Your task to perform on an android device: Do I have any events tomorrow? Image 0: 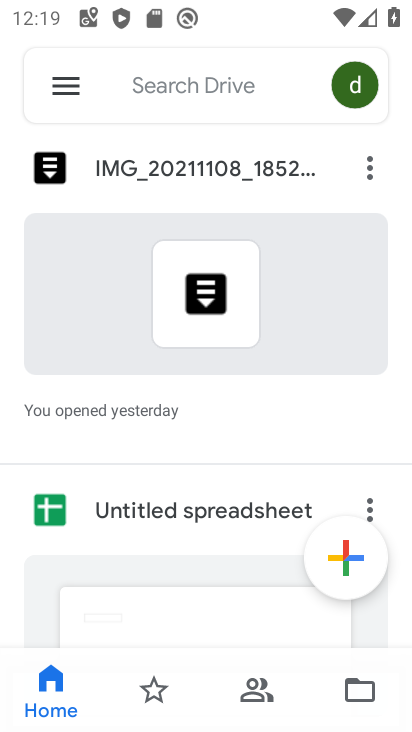
Step 0: press home button
Your task to perform on an android device: Do I have any events tomorrow? Image 1: 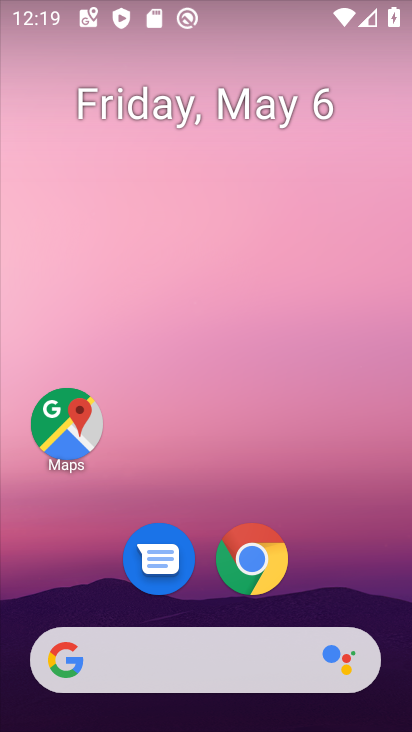
Step 1: drag from (343, 594) to (328, 23)
Your task to perform on an android device: Do I have any events tomorrow? Image 2: 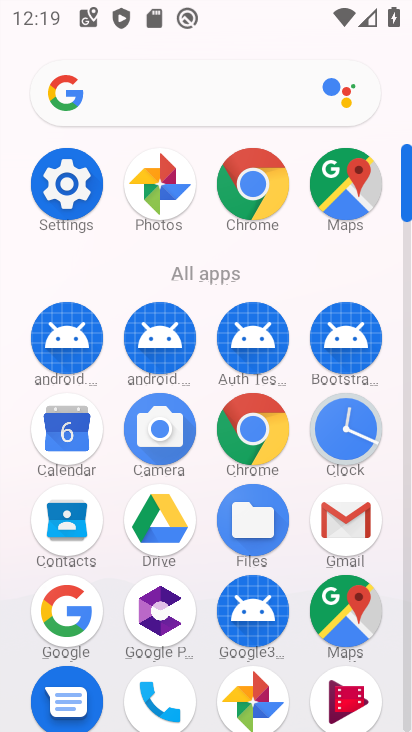
Step 2: drag from (157, 105) to (121, 65)
Your task to perform on an android device: Do I have any events tomorrow? Image 3: 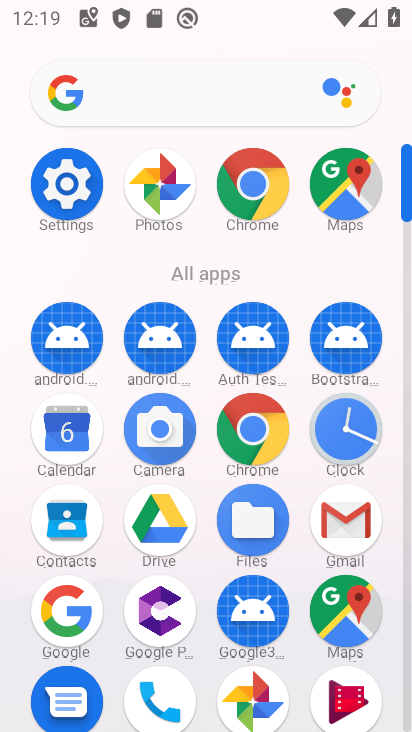
Step 3: click (48, 428)
Your task to perform on an android device: Do I have any events tomorrow? Image 4: 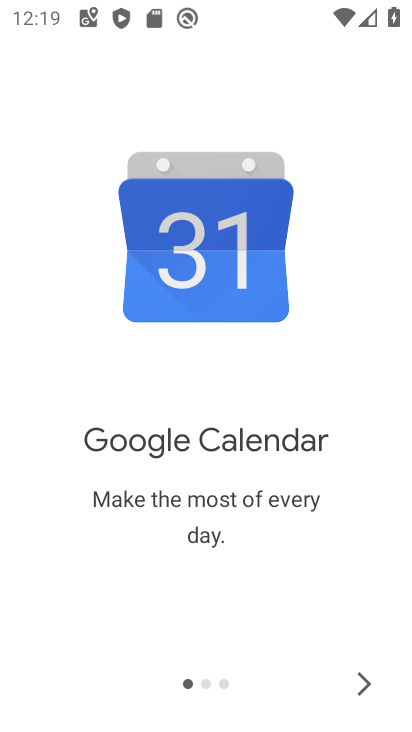
Step 4: click (353, 683)
Your task to perform on an android device: Do I have any events tomorrow? Image 5: 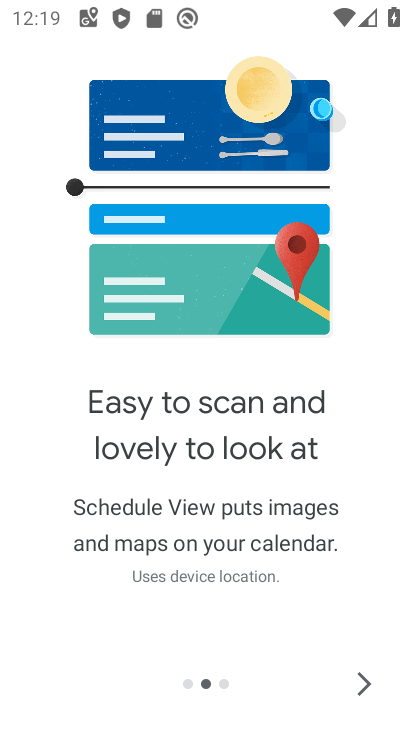
Step 5: click (353, 683)
Your task to perform on an android device: Do I have any events tomorrow? Image 6: 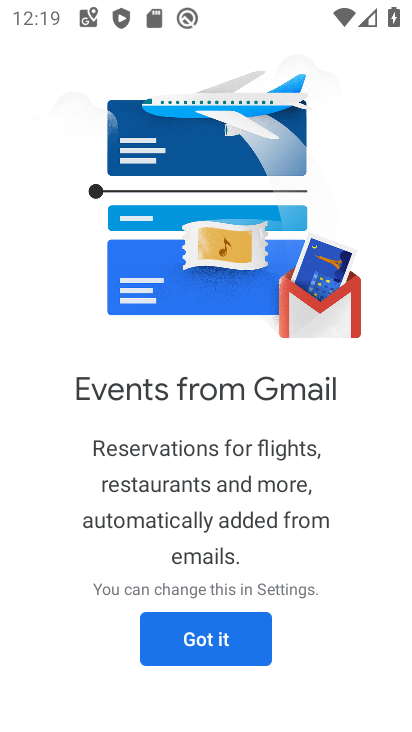
Step 6: click (262, 645)
Your task to perform on an android device: Do I have any events tomorrow? Image 7: 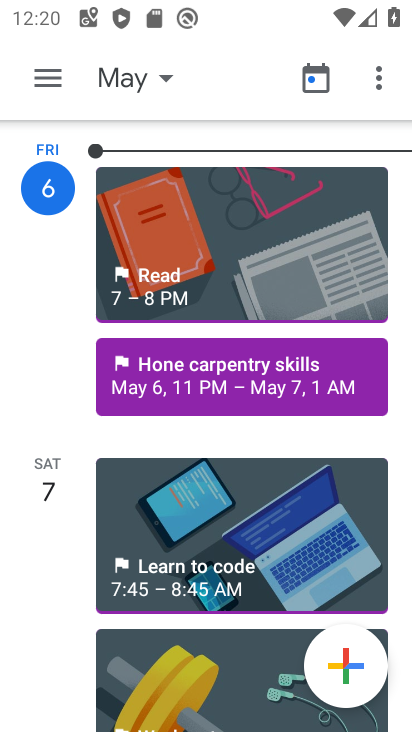
Step 7: click (126, 83)
Your task to perform on an android device: Do I have any events tomorrow? Image 8: 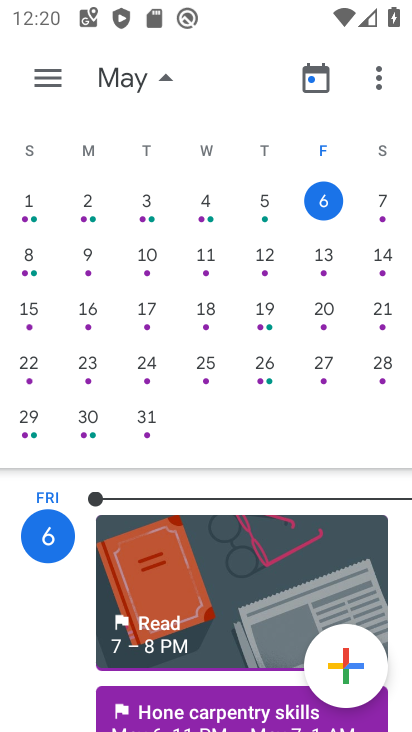
Step 8: click (384, 204)
Your task to perform on an android device: Do I have any events tomorrow? Image 9: 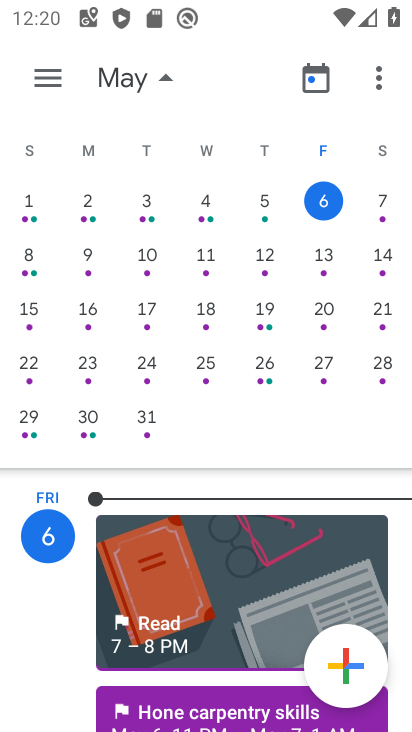
Step 9: click (387, 211)
Your task to perform on an android device: Do I have any events tomorrow? Image 10: 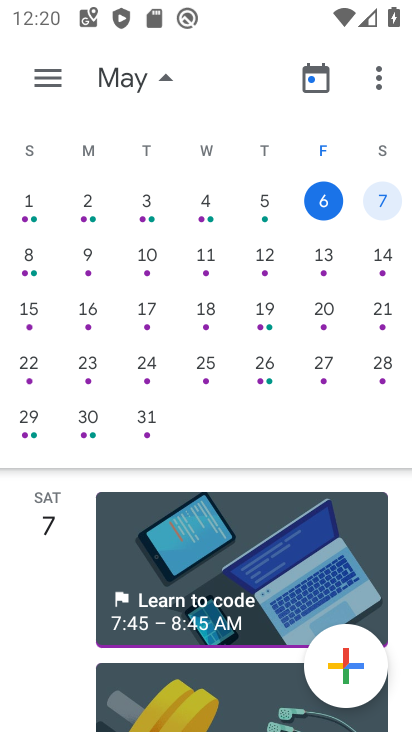
Step 10: task complete